Your task to perform on an android device: check storage Image 0: 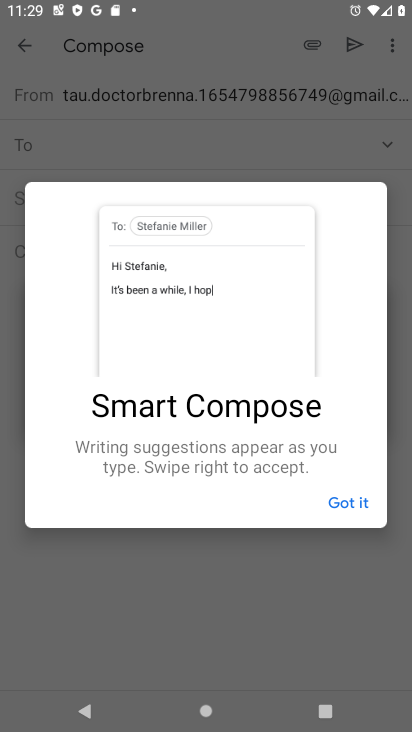
Step 0: press home button
Your task to perform on an android device: check storage Image 1: 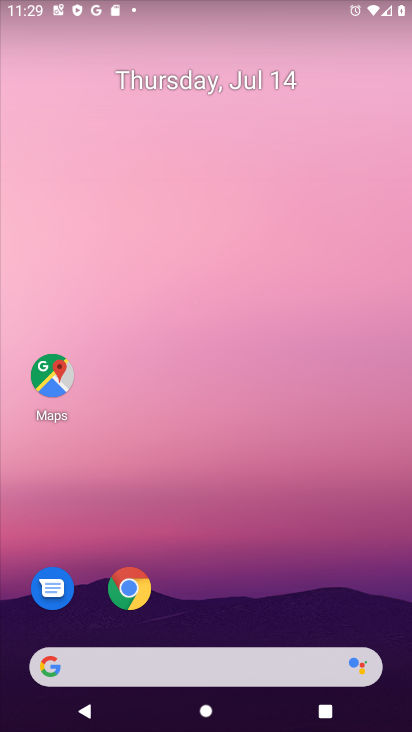
Step 1: drag from (264, 583) to (22, 7)
Your task to perform on an android device: check storage Image 2: 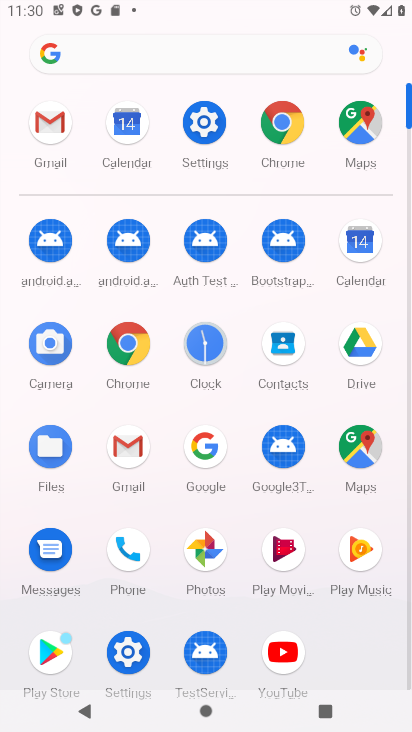
Step 2: click (145, 653)
Your task to perform on an android device: check storage Image 3: 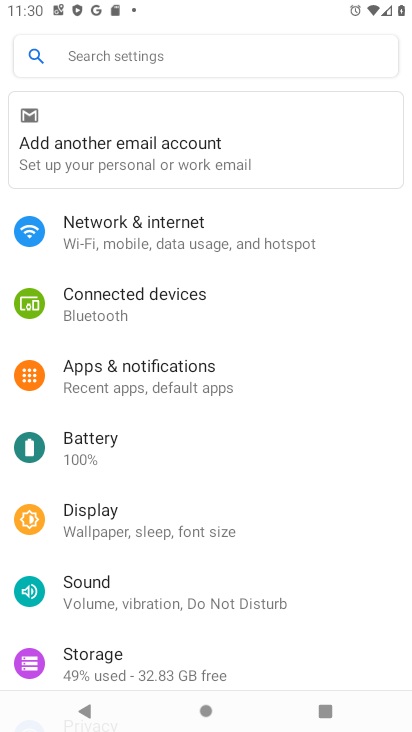
Step 3: click (93, 668)
Your task to perform on an android device: check storage Image 4: 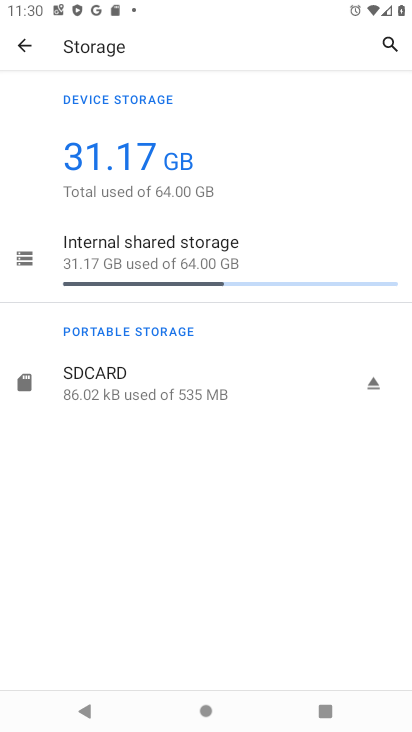
Step 4: task complete